Your task to perform on an android device: turn on data saver in the chrome app Image 0: 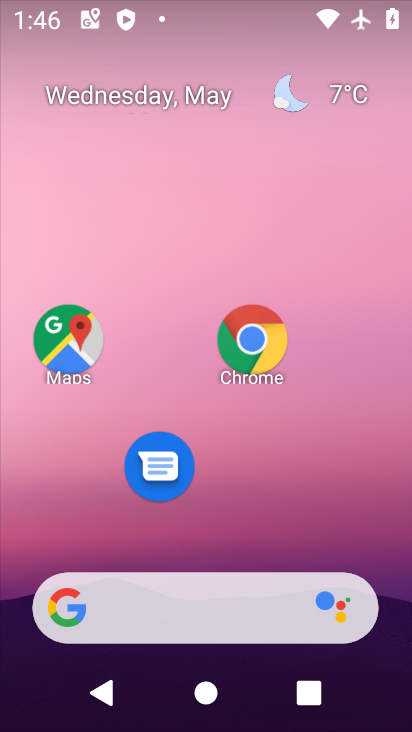
Step 0: drag from (184, 626) to (292, 97)
Your task to perform on an android device: turn on data saver in the chrome app Image 1: 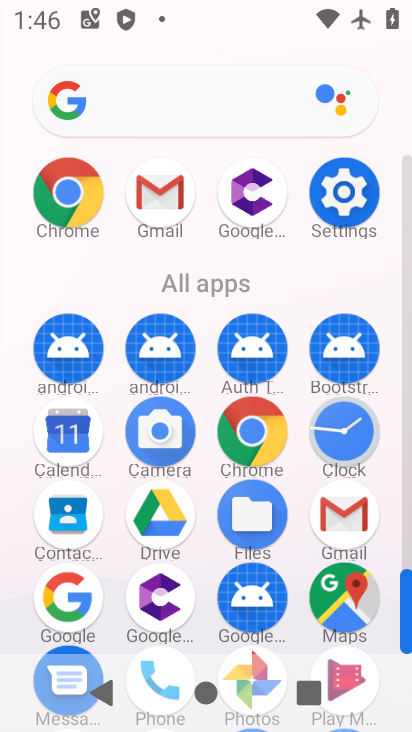
Step 1: click (58, 201)
Your task to perform on an android device: turn on data saver in the chrome app Image 2: 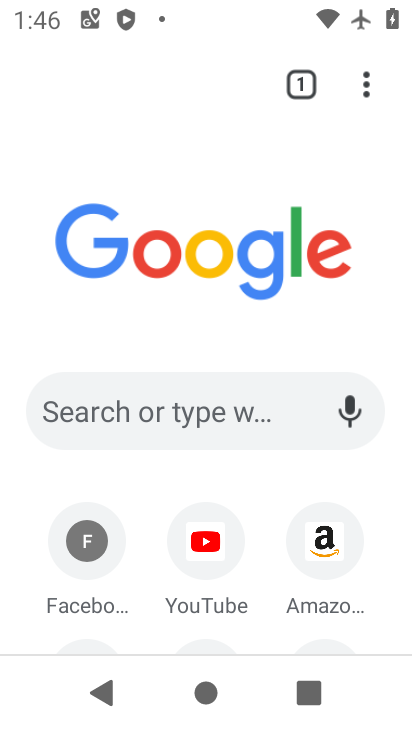
Step 2: drag from (367, 84) to (219, 532)
Your task to perform on an android device: turn on data saver in the chrome app Image 3: 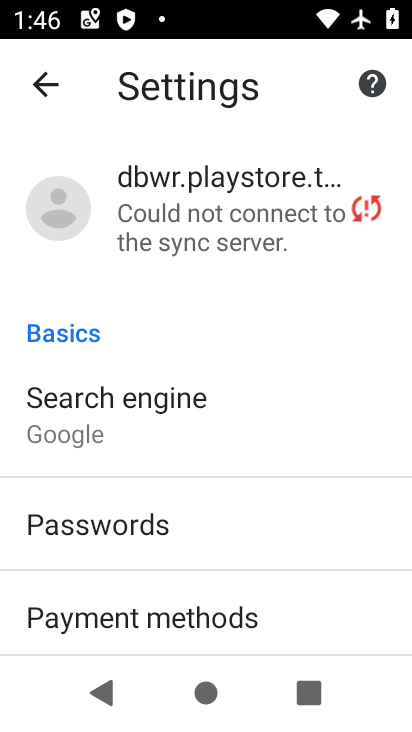
Step 3: drag from (190, 602) to (383, 80)
Your task to perform on an android device: turn on data saver in the chrome app Image 4: 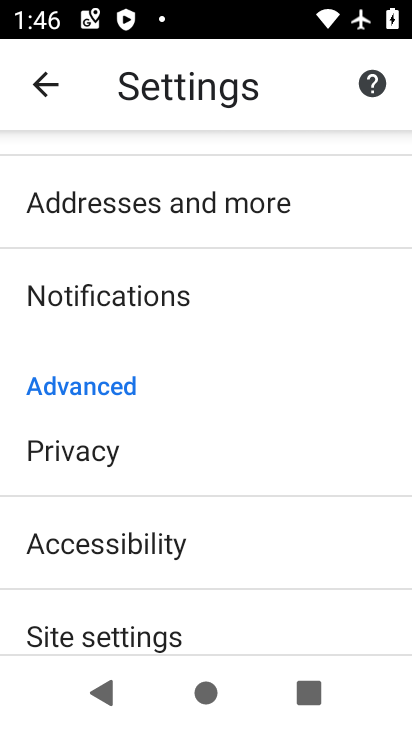
Step 4: drag from (175, 552) to (262, 235)
Your task to perform on an android device: turn on data saver in the chrome app Image 5: 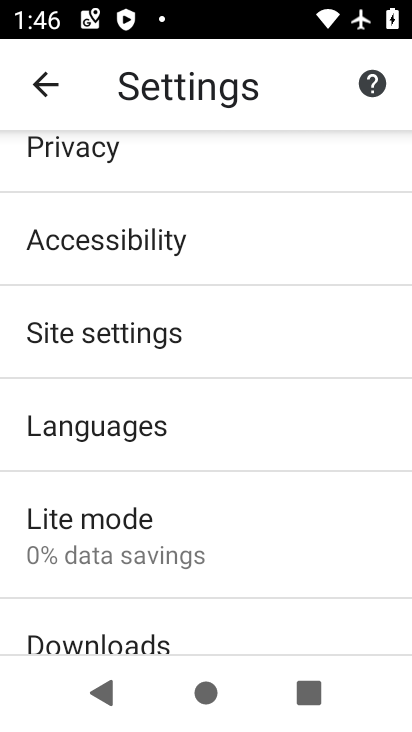
Step 5: click (98, 510)
Your task to perform on an android device: turn on data saver in the chrome app Image 6: 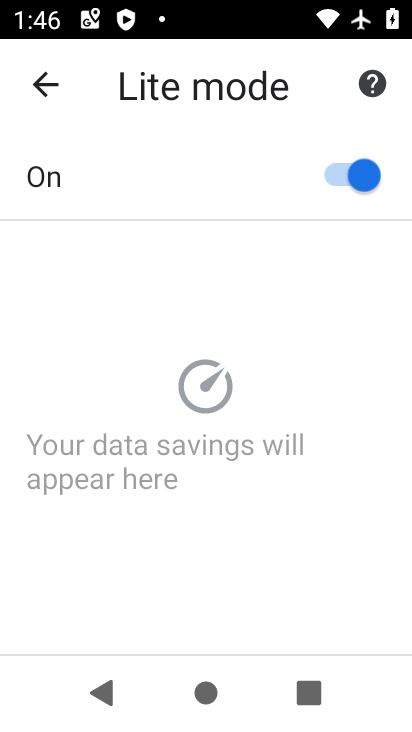
Step 6: task complete